Your task to perform on an android device: Open the calendar and show me this week's events? Image 0: 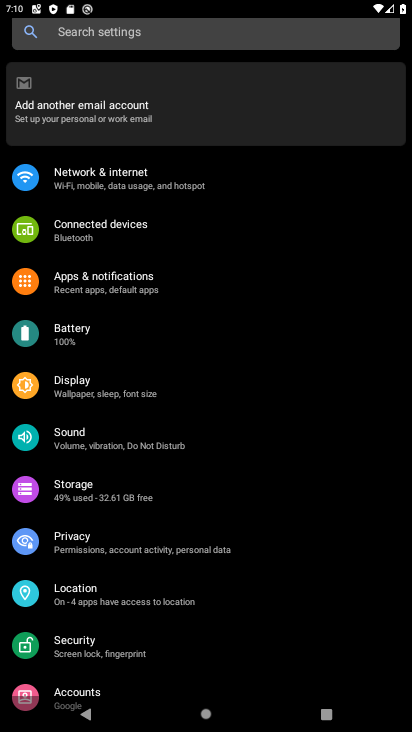
Step 0: press home button
Your task to perform on an android device: Open the calendar and show me this week's events? Image 1: 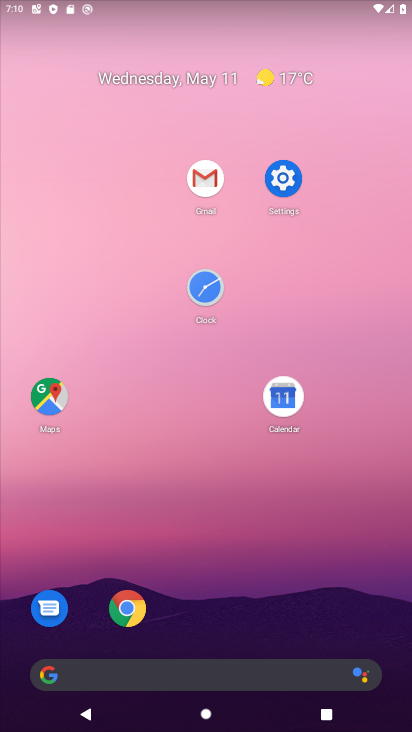
Step 1: drag from (281, 606) to (246, 518)
Your task to perform on an android device: Open the calendar and show me this week's events? Image 2: 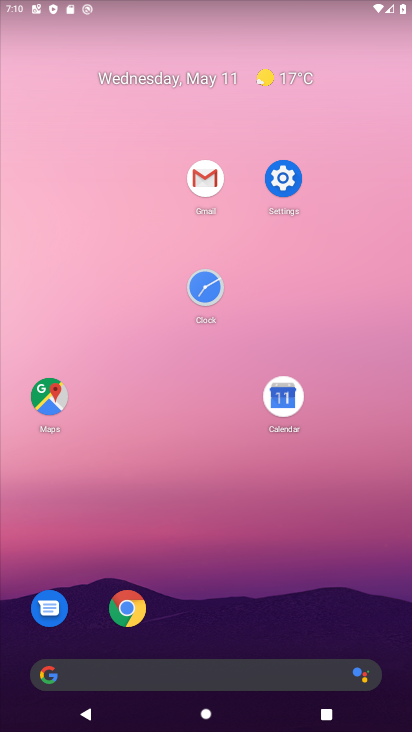
Step 2: click (292, 412)
Your task to perform on an android device: Open the calendar and show me this week's events? Image 3: 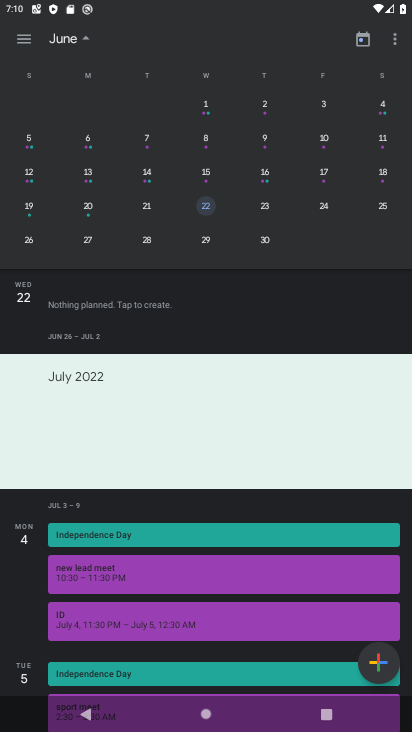
Step 3: drag from (81, 117) to (354, 252)
Your task to perform on an android device: Open the calendar and show me this week's events? Image 4: 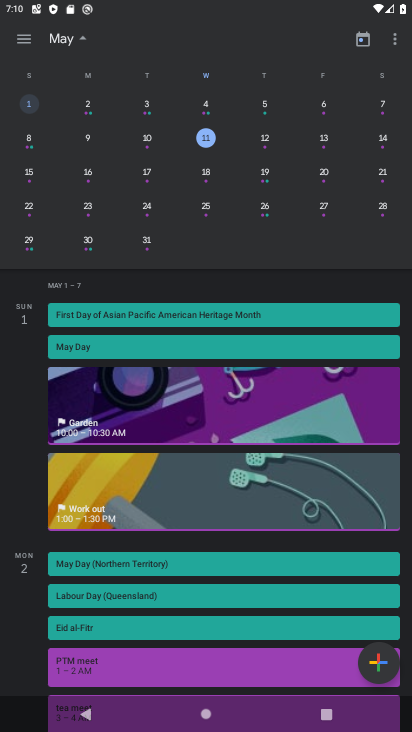
Step 4: click (15, 29)
Your task to perform on an android device: Open the calendar and show me this week's events? Image 5: 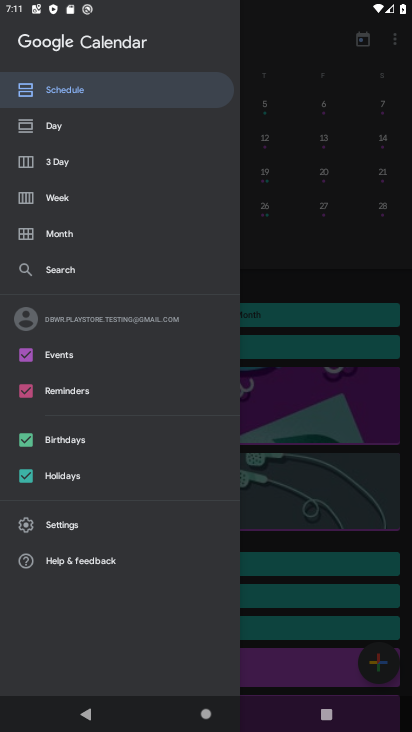
Step 5: click (287, 128)
Your task to perform on an android device: Open the calendar and show me this week's events? Image 6: 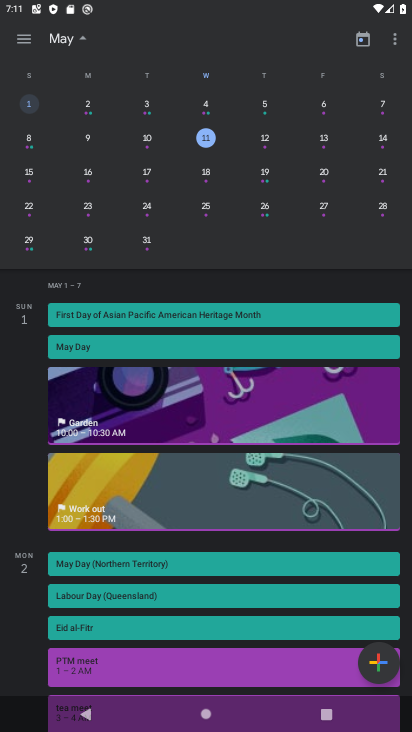
Step 6: task complete